Your task to perform on an android device: turn on improve location accuracy Image 0: 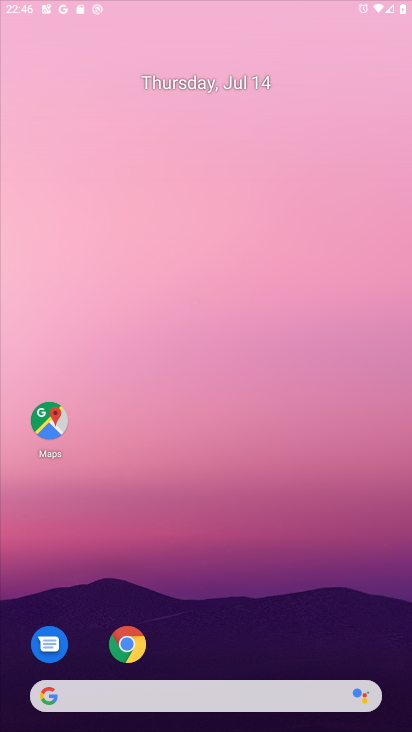
Step 0: click (138, 659)
Your task to perform on an android device: turn on improve location accuracy Image 1: 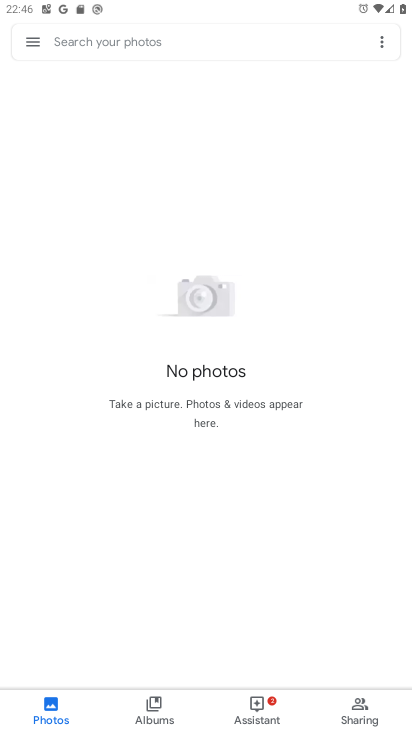
Step 1: press home button
Your task to perform on an android device: turn on improve location accuracy Image 2: 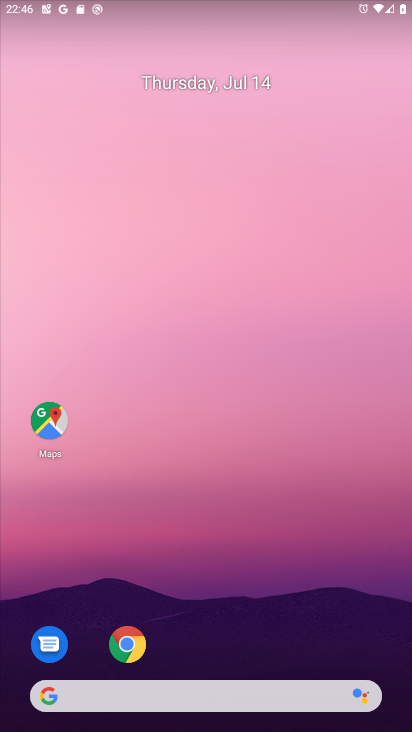
Step 2: drag from (244, 455) to (239, 3)
Your task to perform on an android device: turn on improve location accuracy Image 3: 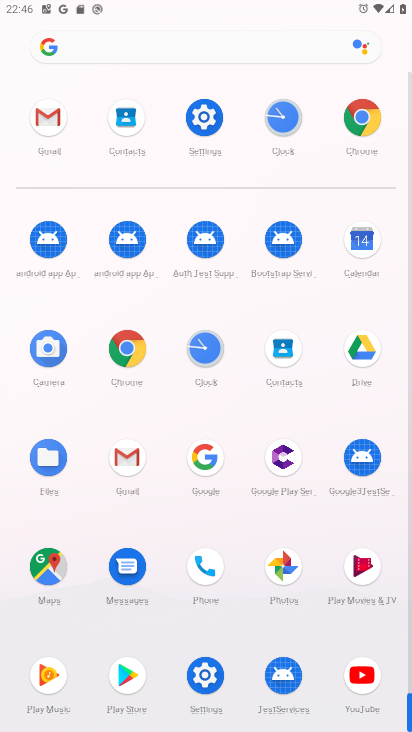
Step 3: click (193, 123)
Your task to perform on an android device: turn on improve location accuracy Image 4: 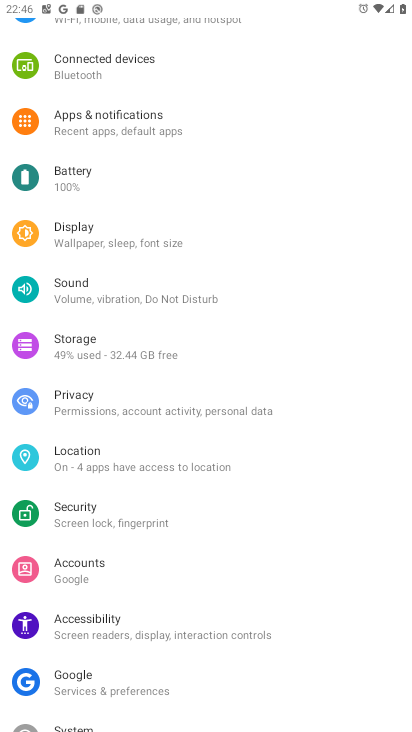
Step 4: click (95, 464)
Your task to perform on an android device: turn on improve location accuracy Image 5: 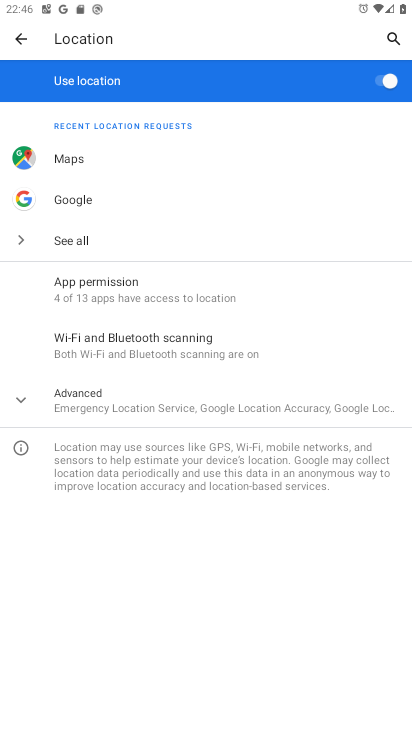
Step 5: click (184, 402)
Your task to perform on an android device: turn on improve location accuracy Image 6: 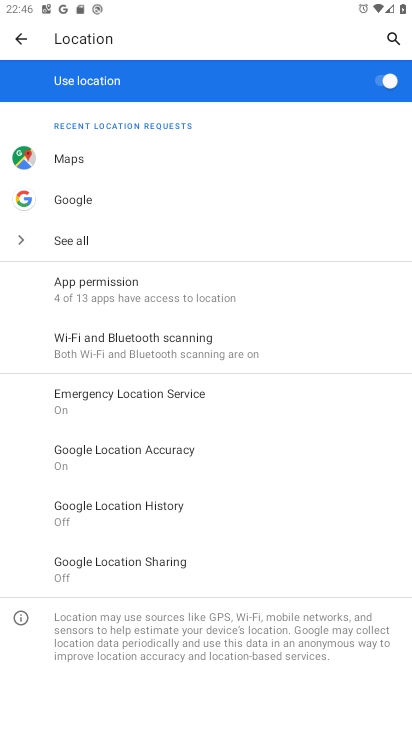
Step 6: click (194, 451)
Your task to perform on an android device: turn on improve location accuracy Image 7: 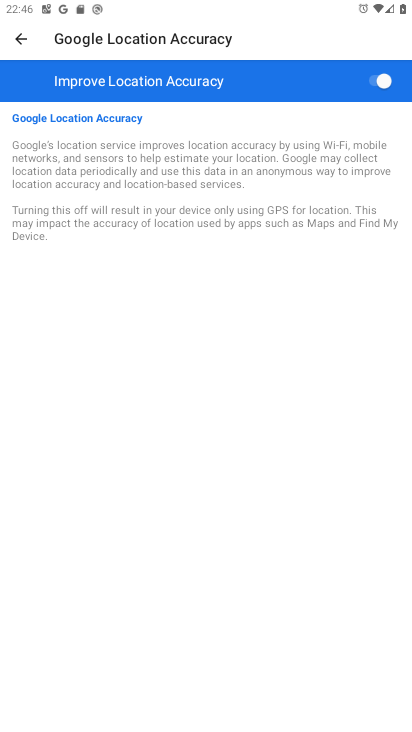
Step 7: task complete